Your task to perform on an android device: Open Google Chrome Image 0: 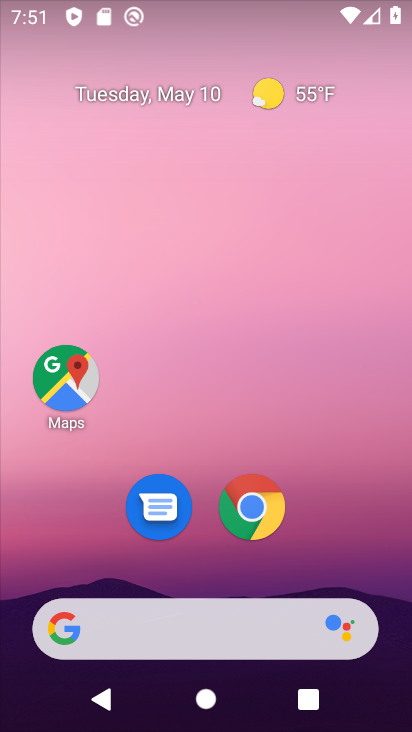
Step 0: click (267, 525)
Your task to perform on an android device: Open Google Chrome Image 1: 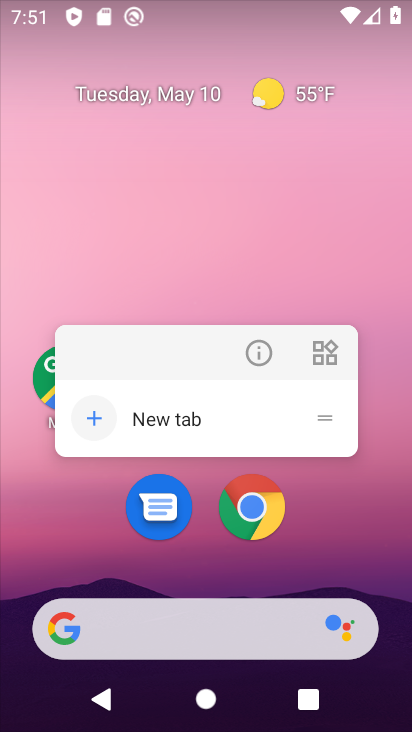
Step 1: click (262, 504)
Your task to perform on an android device: Open Google Chrome Image 2: 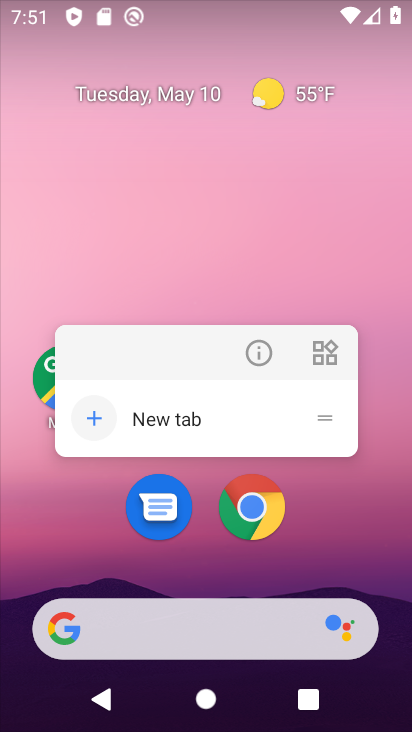
Step 2: click (250, 503)
Your task to perform on an android device: Open Google Chrome Image 3: 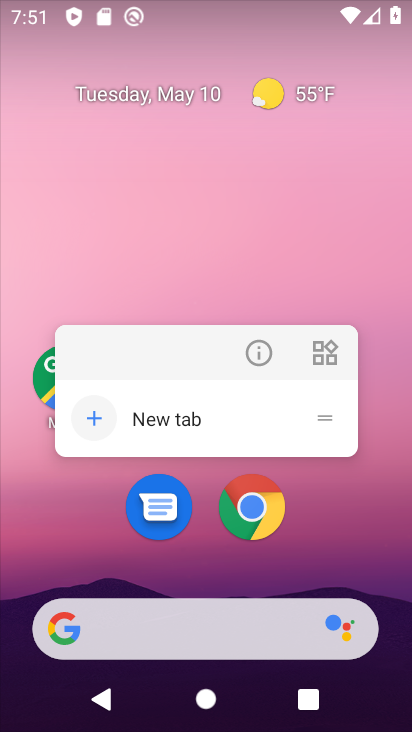
Step 3: click (254, 519)
Your task to perform on an android device: Open Google Chrome Image 4: 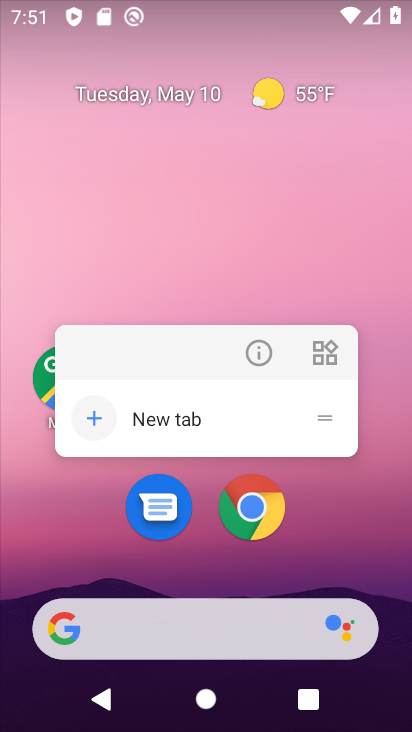
Step 4: click (280, 532)
Your task to perform on an android device: Open Google Chrome Image 5: 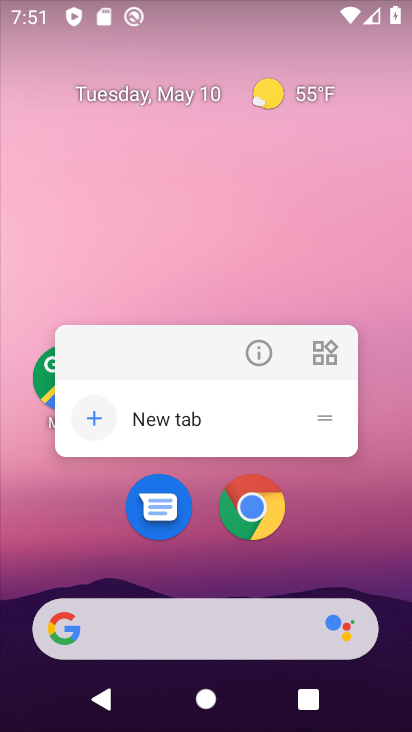
Step 5: click (271, 521)
Your task to perform on an android device: Open Google Chrome Image 6: 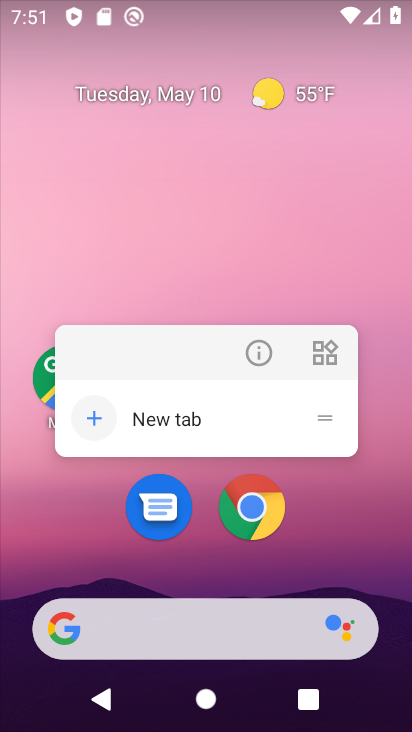
Step 6: click (260, 509)
Your task to perform on an android device: Open Google Chrome Image 7: 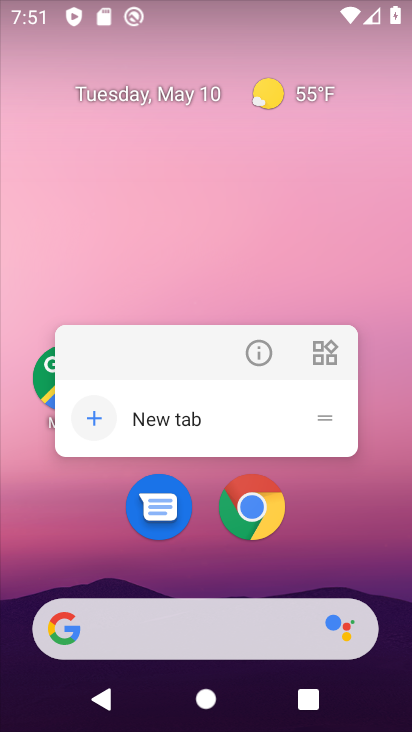
Step 7: click (255, 515)
Your task to perform on an android device: Open Google Chrome Image 8: 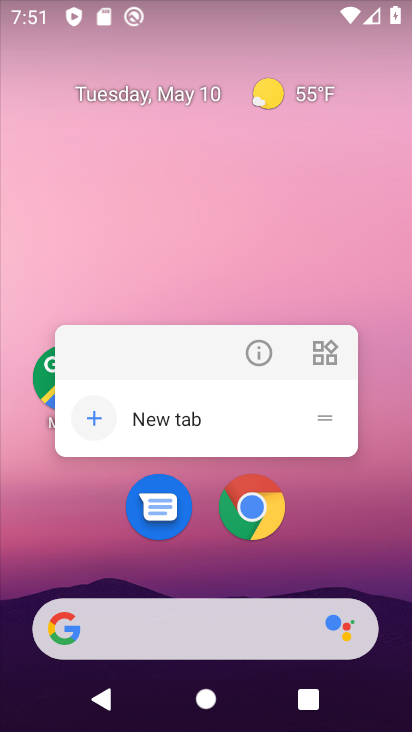
Step 8: click (264, 522)
Your task to perform on an android device: Open Google Chrome Image 9: 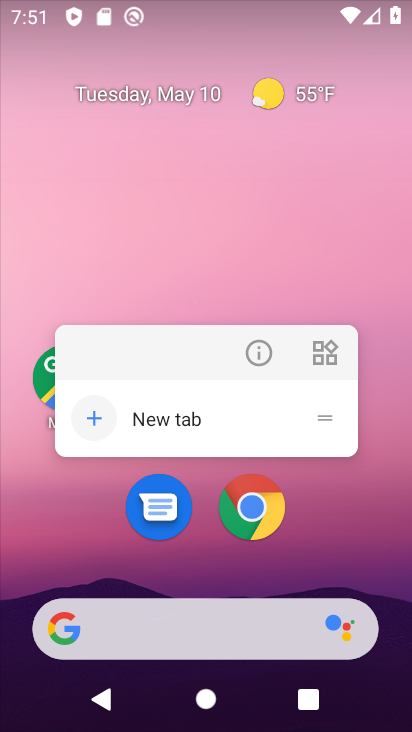
Step 9: click (263, 515)
Your task to perform on an android device: Open Google Chrome Image 10: 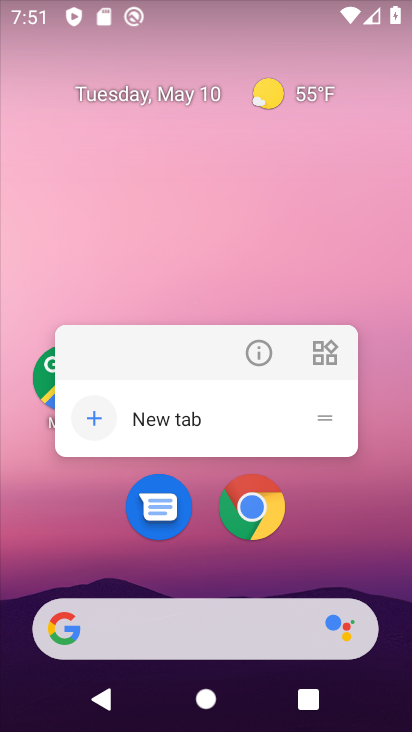
Step 10: click (274, 503)
Your task to perform on an android device: Open Google Chrome Image 11: 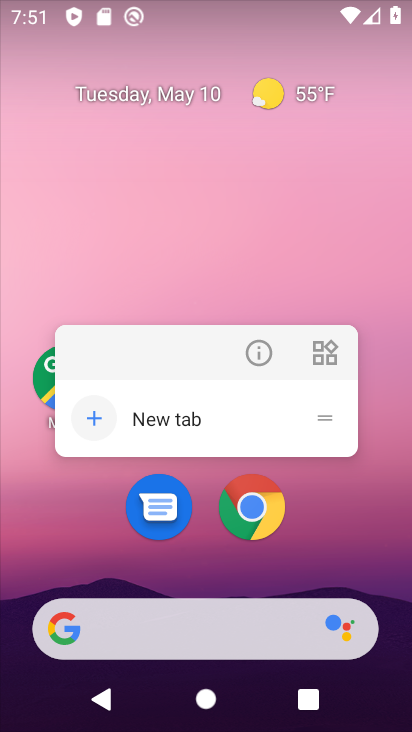
Step 11: click (268, 513)
Your task to perform on an android device: Open Google Chrome Image 12: 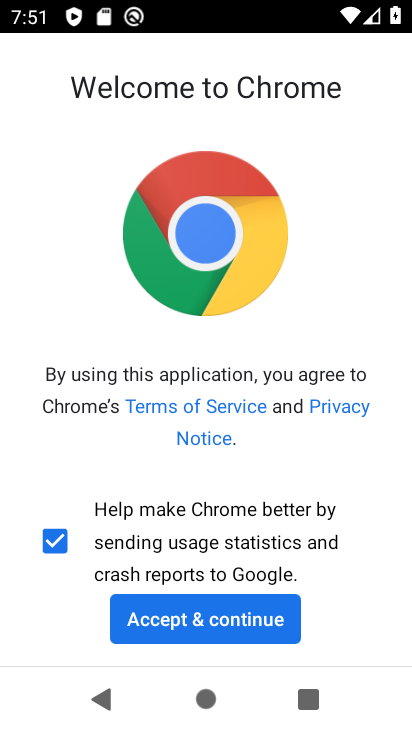
Step 12: click (229, 616)
Your task to perform on an android device: Open Google Chrome Image 13: 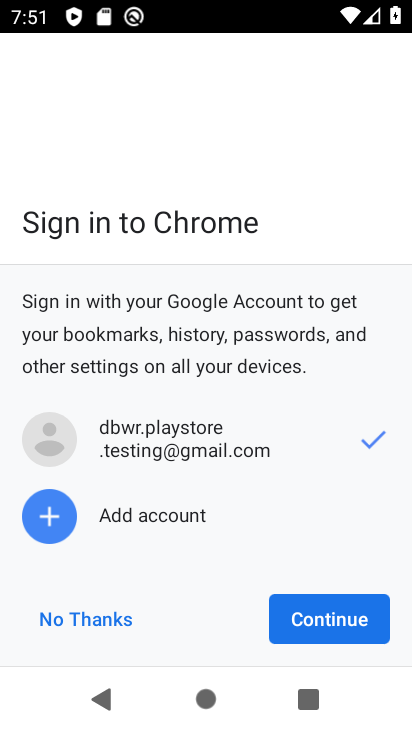
Step 13: click (335, 616)
Your task to perform on an android device: Open Google Chrome Image 14: 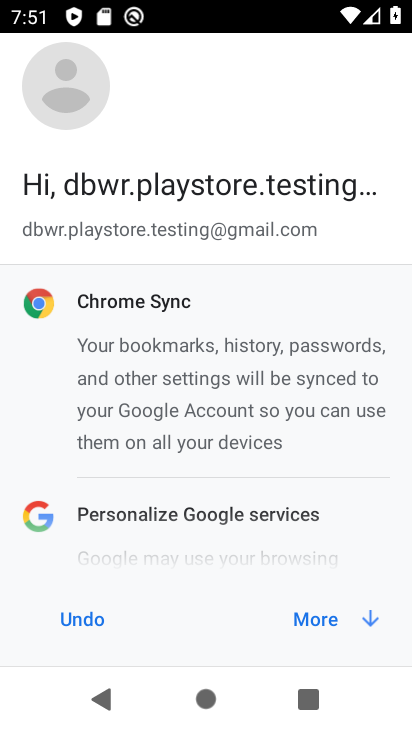
Step 14: click (294, 617)
Your task to perform on an android device: Open Google Chrome Image 15: 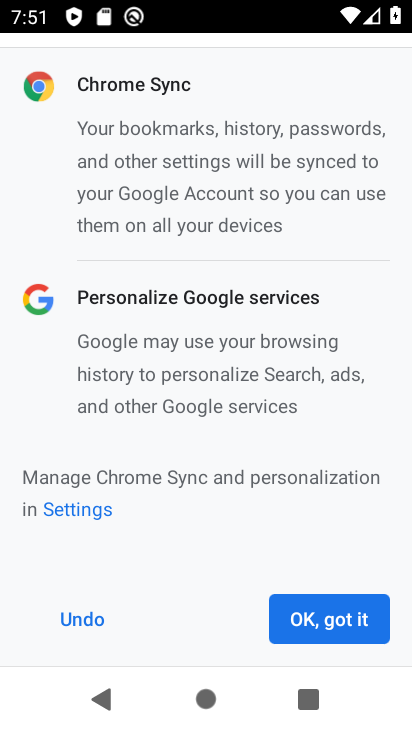
Step 15: click (302, 616)
Your task to perform on an android device: Open Google Chrome Image 16: 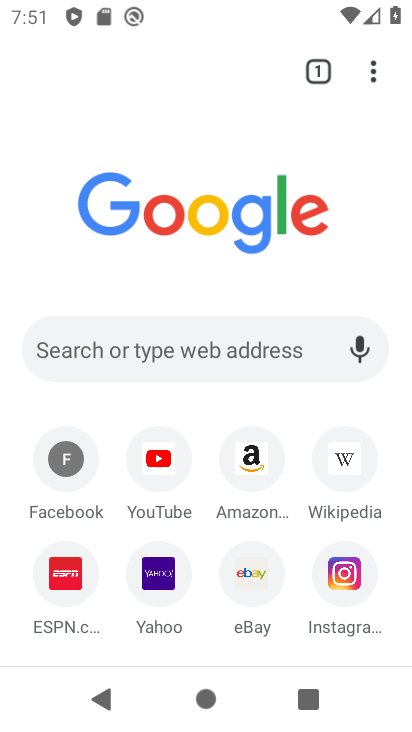
Step 16: task complete